Your task to perform on an android device: turn notification dots on Image 0: 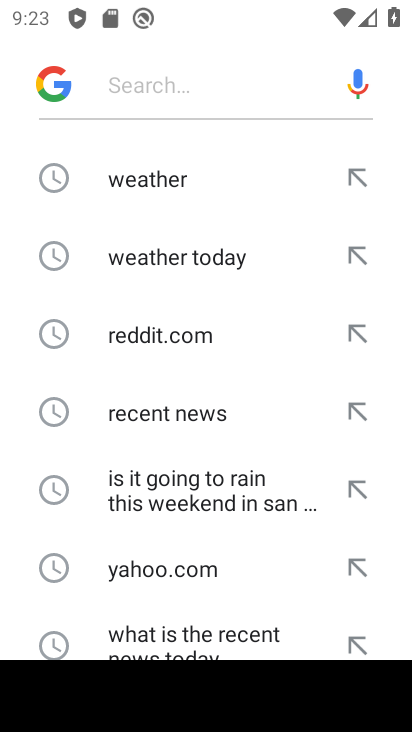
Step 0: press home button
Your task to perform on an android device: turn notification dots on Image 1: 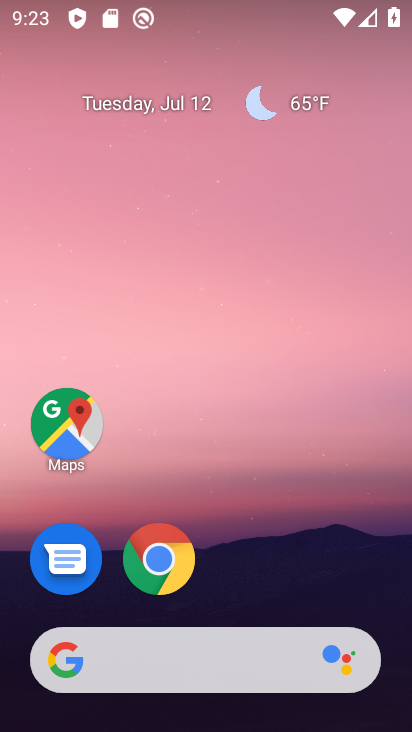
Step 1: drag from (360, 568) to (339, 118)
Your task to perform on an android device: turn notification dots on Image 2: 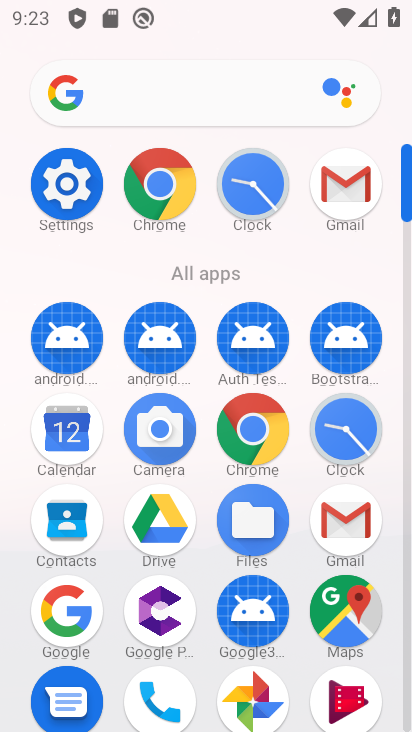
Step 2: click (71, 197)
Your task to perform on an android device: turn notification dots on Image 3: 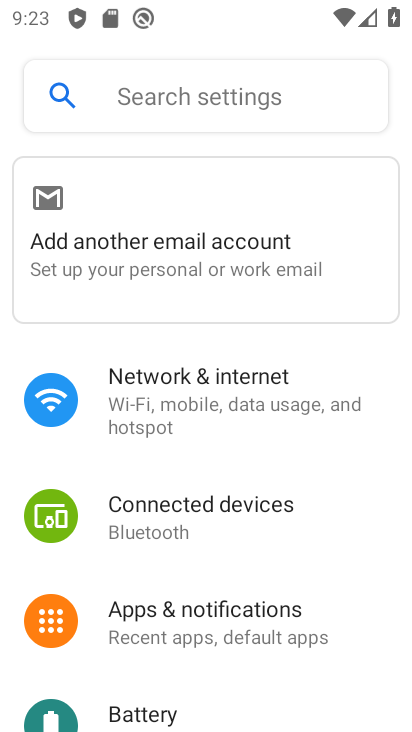
Step 3: drag from (354, 491) to (371, 318)
Your task to perform on an android device: turn notification dots on Image 4: 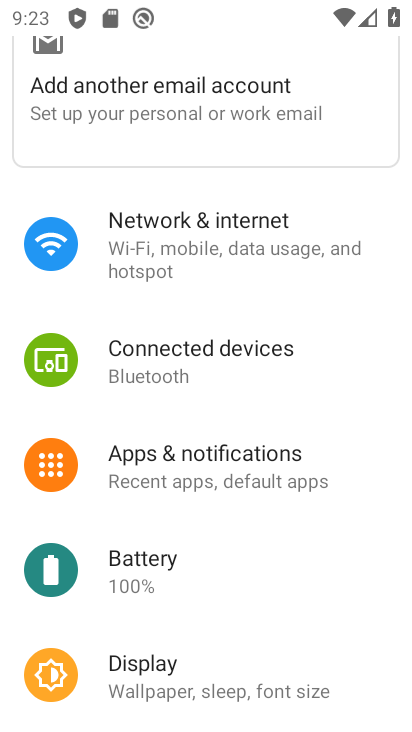
Step 4: drag from (359, 535) to (356, 402)
Your task to perform on an android device: turn notification dots on Image 5: 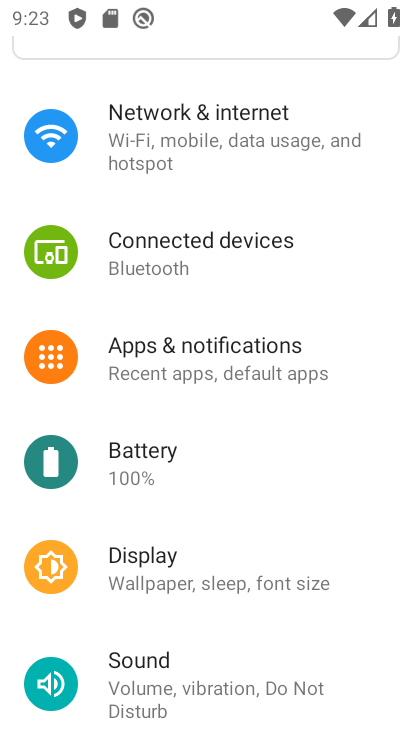
Step 5: drag from (367, 516) to (370, 380)
Your task to perform on an android device: turn notification dots on Image 6: 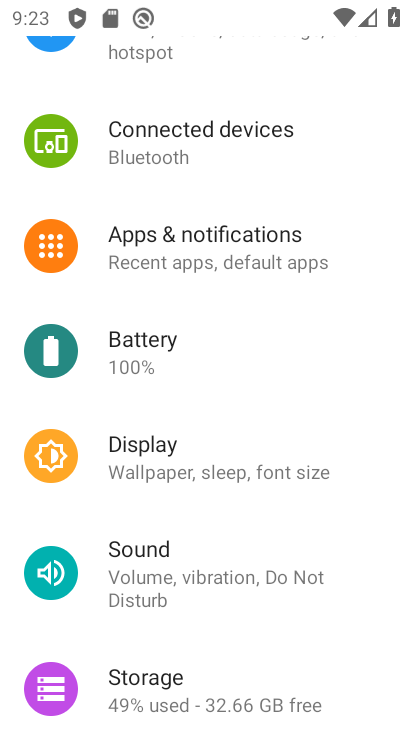
Step 6: drag from (351, 577) to (351, 455)
Your task to perform on an android device: turn notification dots on Image 7: 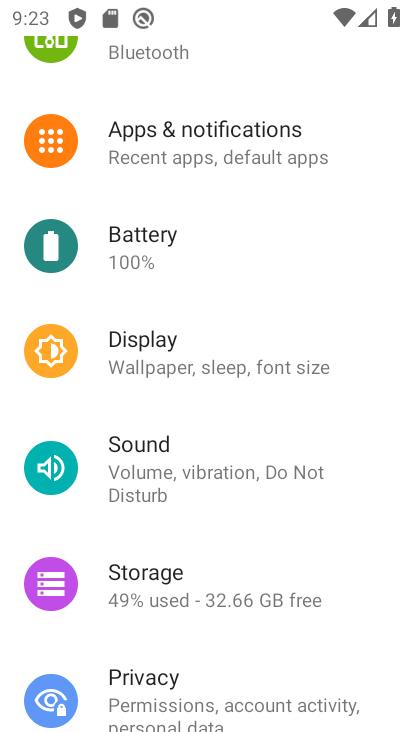
Step 7: drag from (353, 548) to (357, 419)
Your task to perform on an android device: turn notification dots on Image 8: 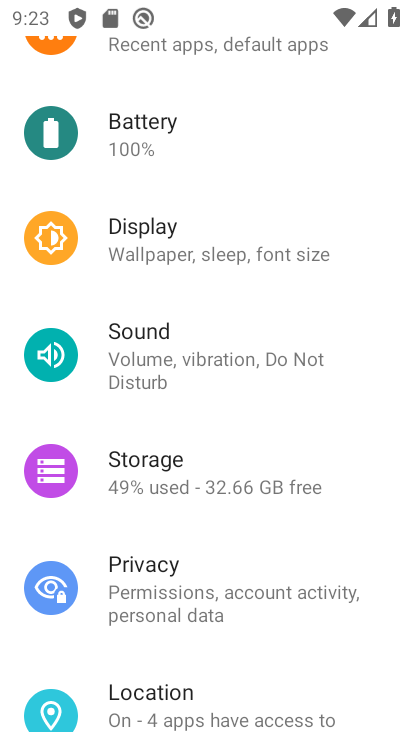
Step 8: drag from (355, 516) to (359, 383)
Your task to perform on an android device: turn notification dots on Image 9: 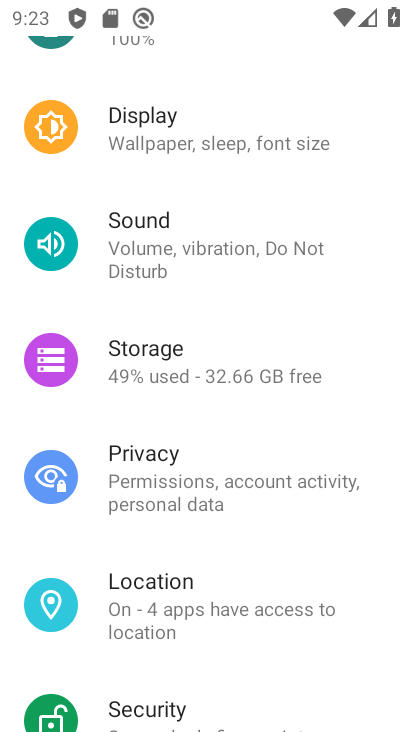
Step 9: drag from (364, 538) to (371, 278)
Your task to perform on an android device: turn notification dots on Image 10: 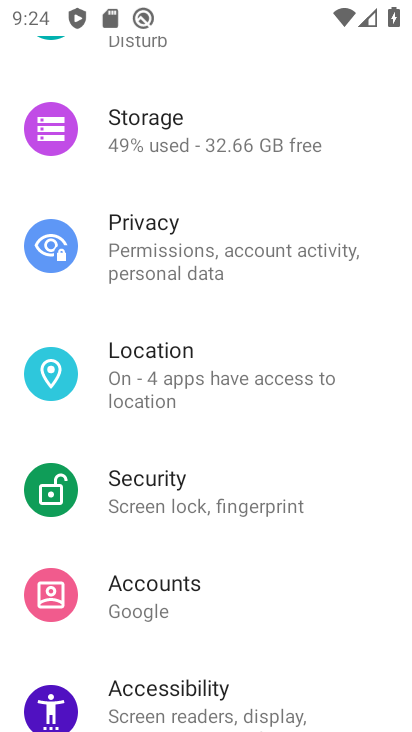
Step 10: drag from (342, 506) to (346, 299)
Your task to perform on an android device: turn notification dots on Image 11: 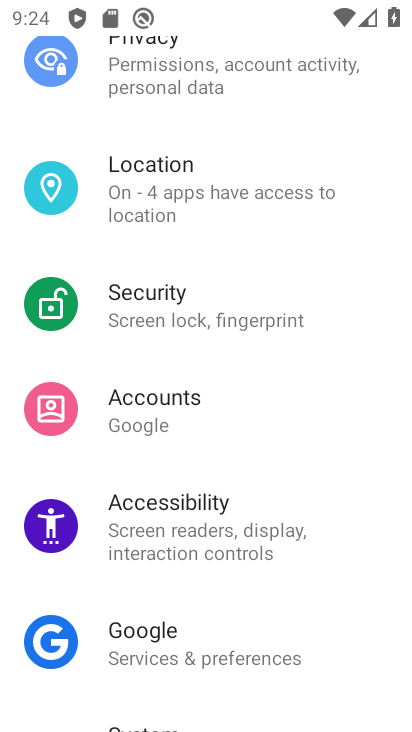
Step 11: drag from (358, 504) to (373, 244)
Your task to perform on an android device: turn notification dots on Image 12: 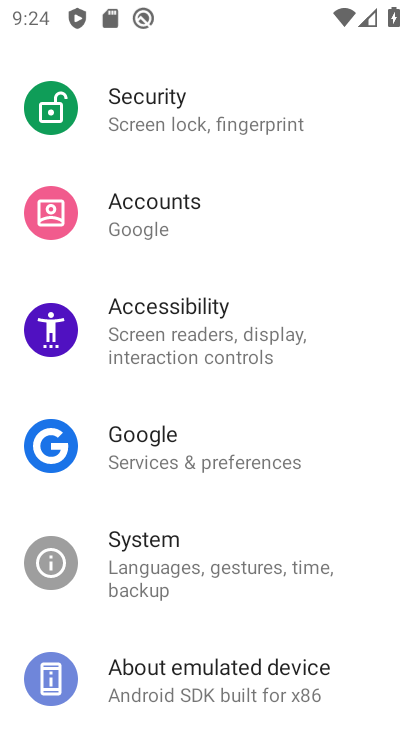
Step 12: drag from (349, 243) to (353, 390)
Your task to perform on an android device: turn notification dots on Image 13: 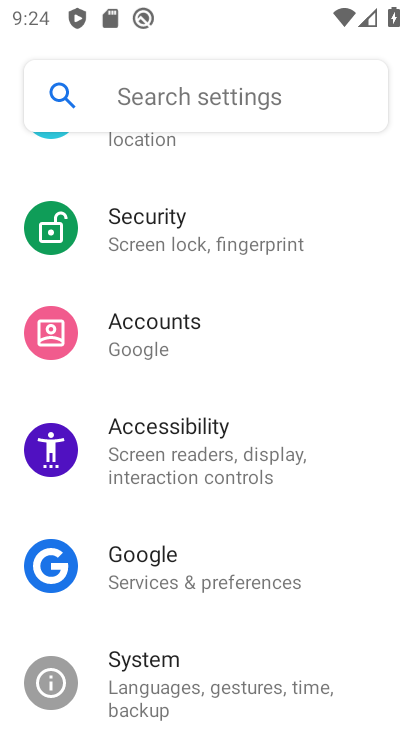
Step 13: drag from (343, 208) to (337, 369)
Your task to perform on an android device: turn notification dots on Image 14: 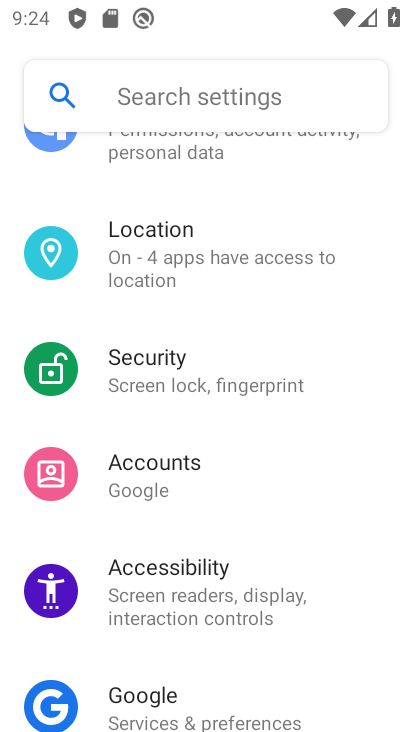
Step 14: drag from (352, 186) to (358, 341)
Your task to perform on an android device: turn notification dots on Image 15: 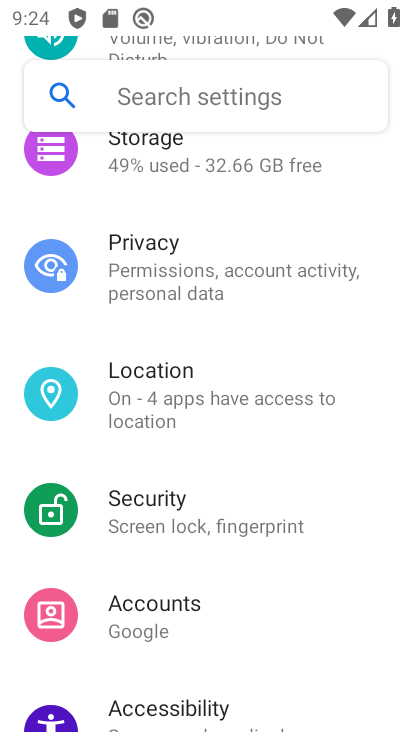
Step 15: drag from (362, 175) to (360, 355)
Your task to perform on an android device: turn notification dots on Image 16: 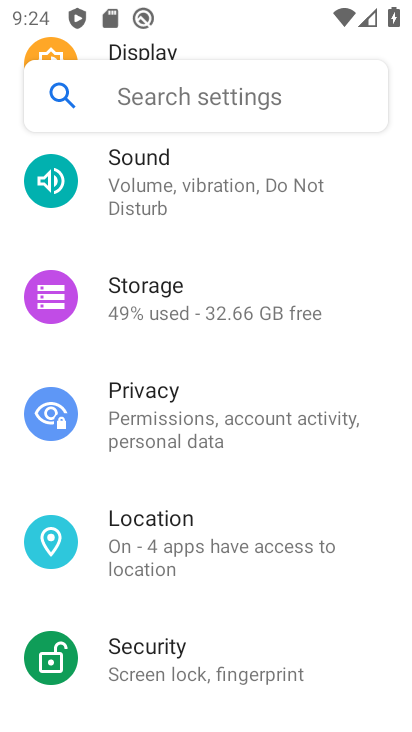
Step 16: drag from (351, 173) to (355, 355)
Your task to perform on an android device: turn notification dots on Image 17: 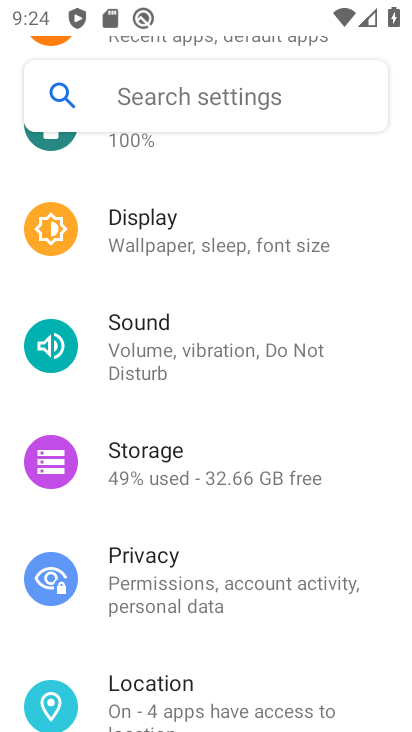
Step 17: drag from (357, 240) to (352, 425)
Your task to perform on an android device: turn notification dots on Image 18: 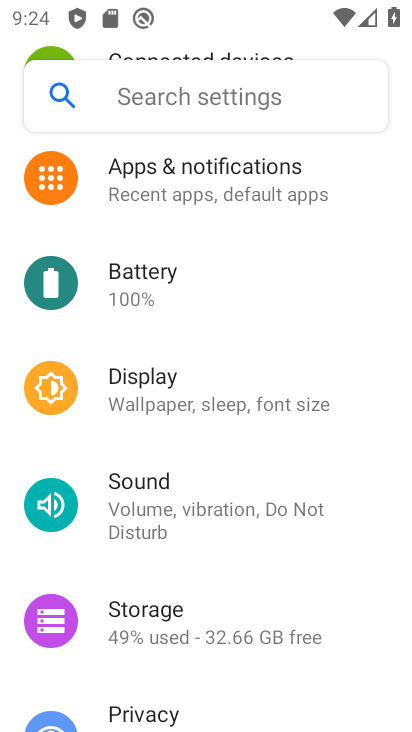
Step 18: drag from (342, 263) to (336, 476)
Your task to perform on an android device: turn notification dots on Image 19: 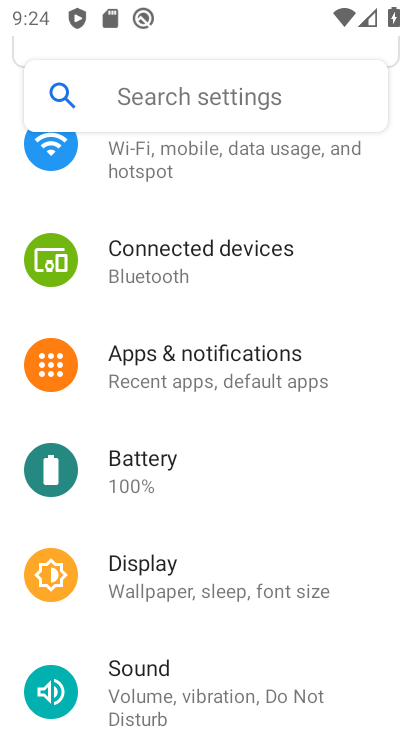
Step 19: click (291, 355)
Your task to perform on an android device: turn notification dots on Image 20: 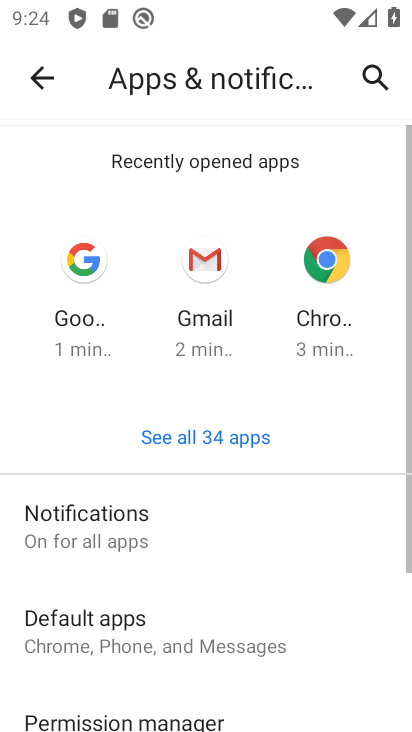
Step 20: click (135, 527)
Your task to perform on an android device: turn notification dots on Image 21: 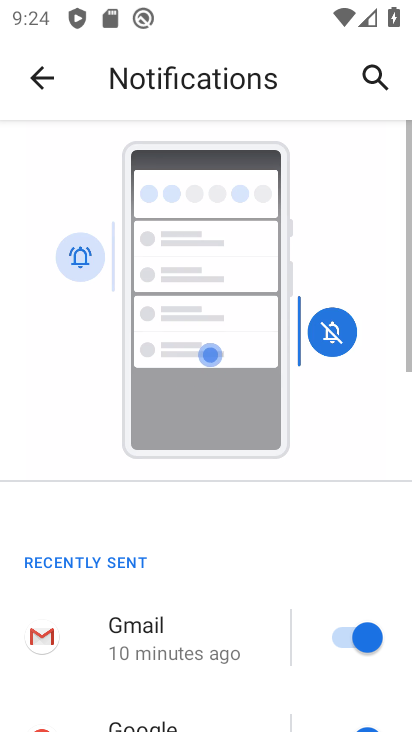
Step 21: drag from (325, 527) to (307, 300)
Your task to perform on an android device: turn notification dots on Image 22: 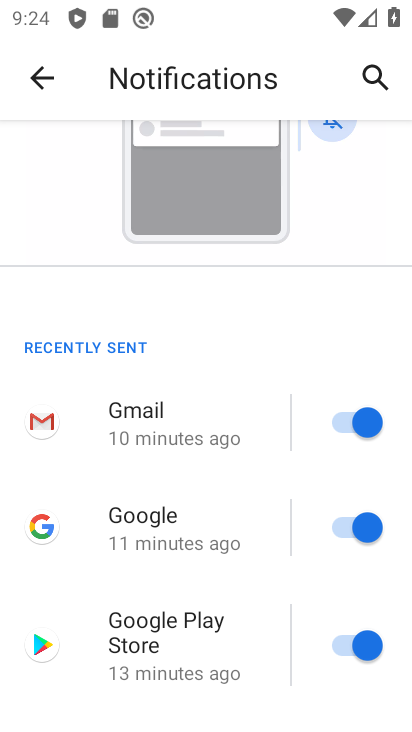
Step 22: drag from (269, 559) to (263, 328)
Your task to perform on an android device: turn notification dots on Image 23: 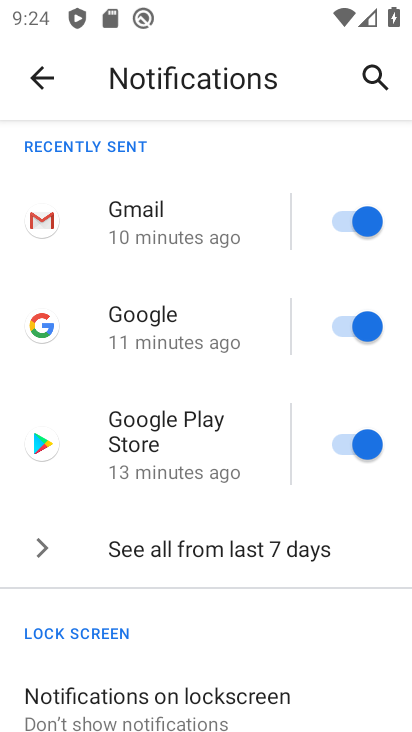
Step 23: drag from (269, 578) to (246, 373)
Your task to perform on an android device: turn notification dots on Image 24: 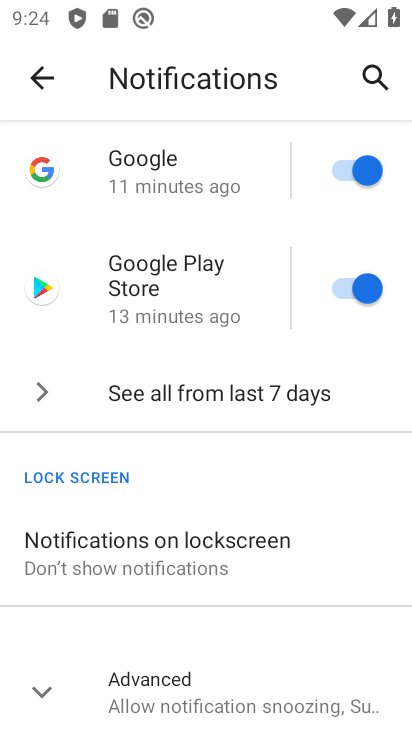
Step 24: drag from (265, 606) to (263, 379)
Your task to perform on an android device: turn notification dots on Image 25: 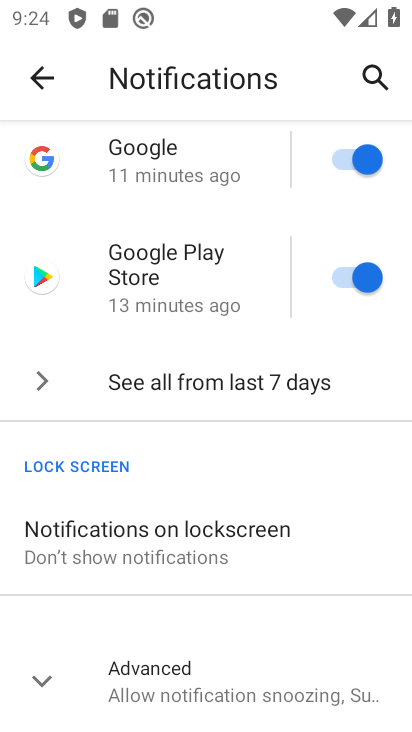
Step 25: click (213, 681)
Your task to perform on an android device: turn notification dots on Image 26: 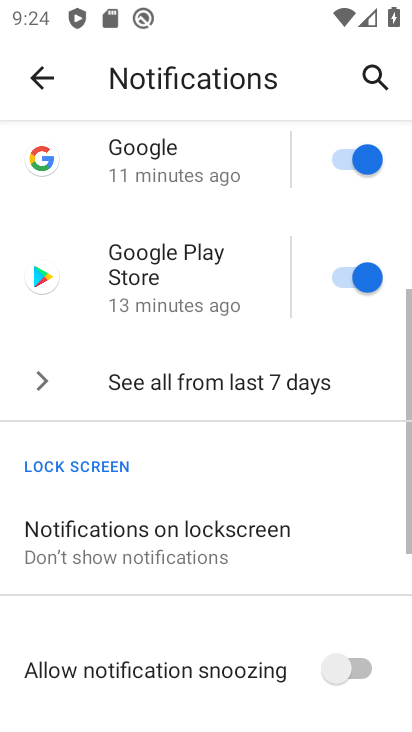
Step 26: task complete